Your task to perform on an android device: star an email in the gmail app Image 0: 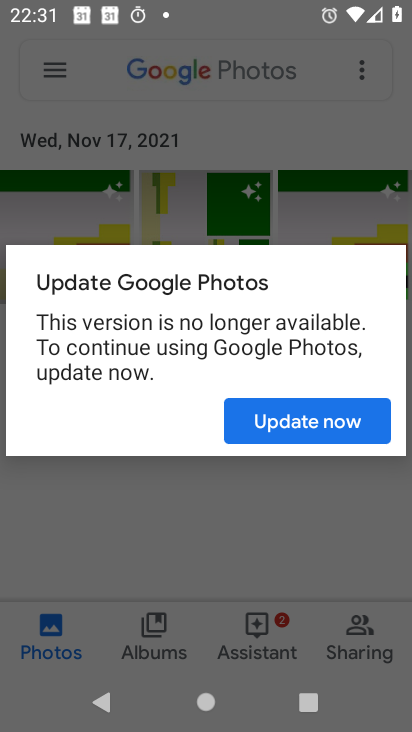
Step 0: press home button
Your task to perform on an android device: star an email in the gmail app Image 1: 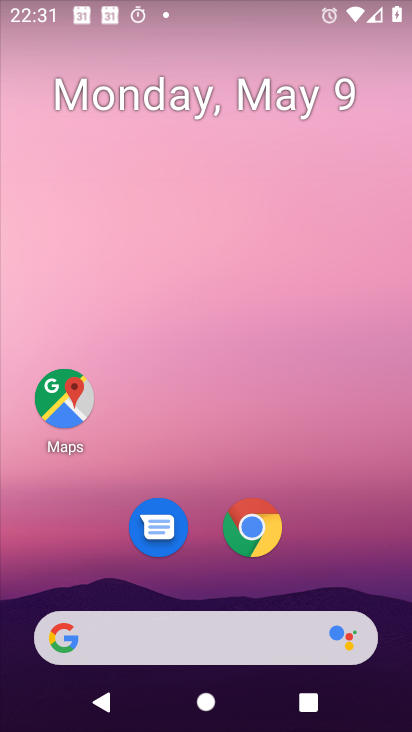
Step 1: drag from (206, 574) to (180, 95)
Your task to perform on an android device: star an email in the gmail app Image 2: 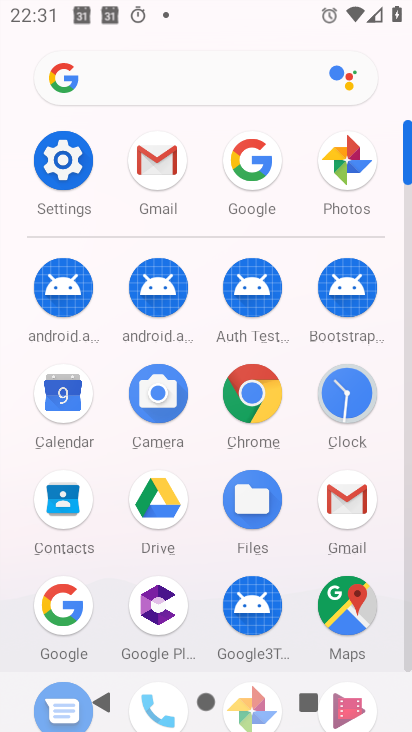
Step 2: click (162, 169)
Your task to perform on an android device: star an email in the gmail app Image 3: 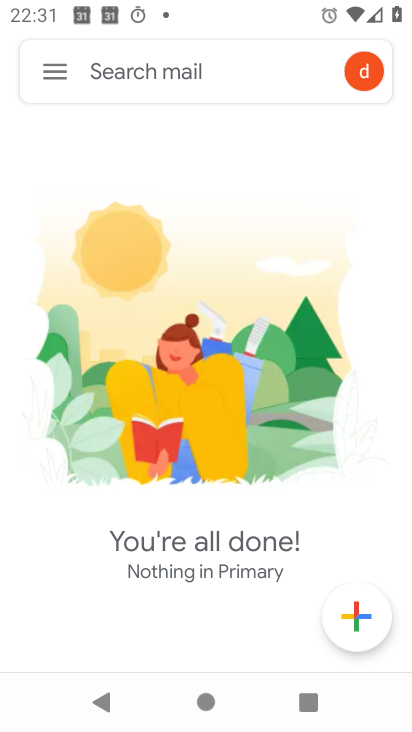
Step 3: click (61, 78)
Your task to perform on an android device: star an email in the gmail app Image 4: 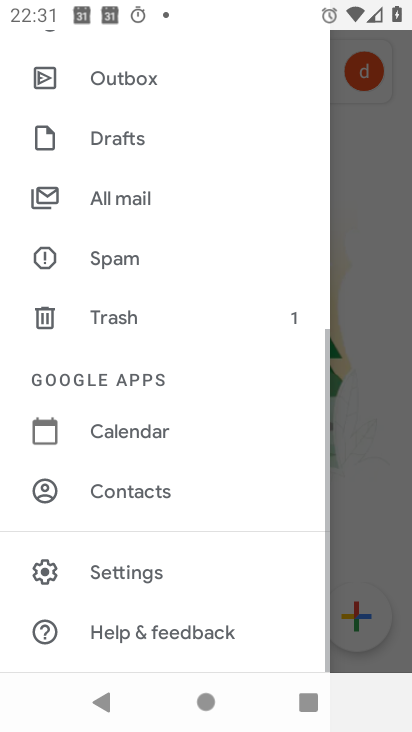
Step 4: click (121, 189)
Your task to perform on an android device: star an email in the gmail app Image 5: 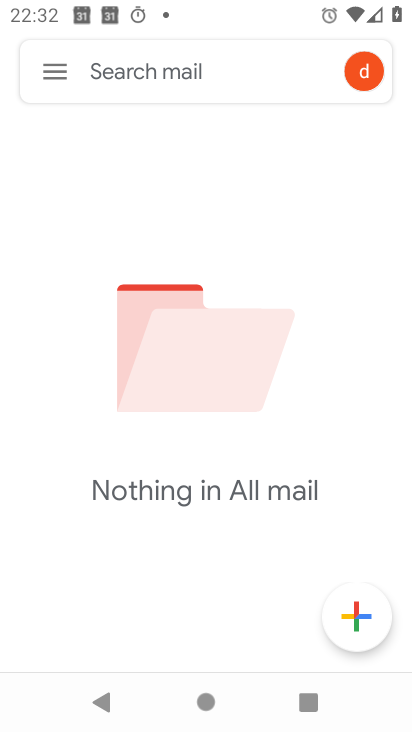
Step 5: task complete